Your task to perform on an android device: toggle improve location accuracy Image 0: 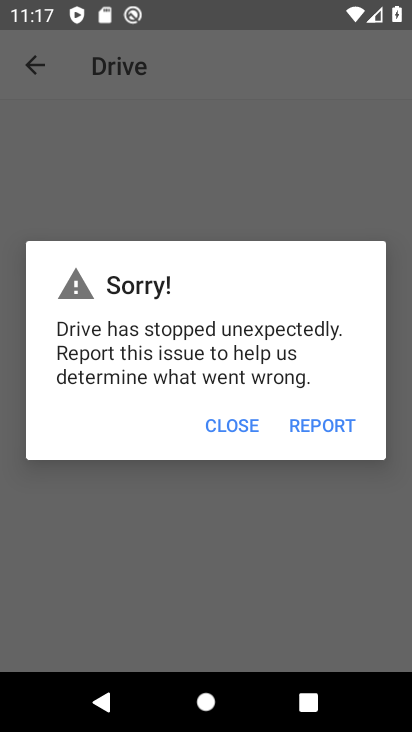
Step 0: press home button
Your task to perform on an android device: toggle improve location accuracy Image 1: 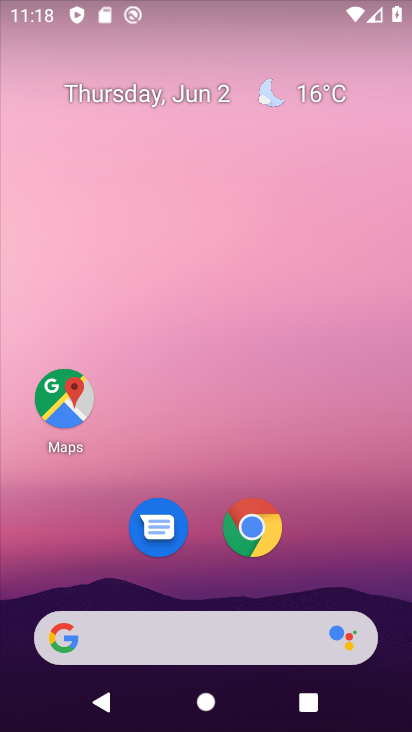
Step 1: drag from (128, 626) to (39, 30)
Your task to perform on an android device: toggle improve location accuracy Image 2: 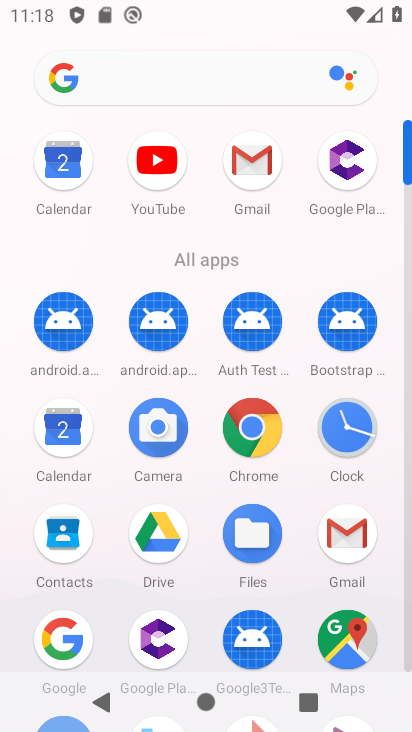
Step 2: drag from (205, 586) to (143, 98)
Your task to perform on an android device: toggle improve location accuracy Image 3: 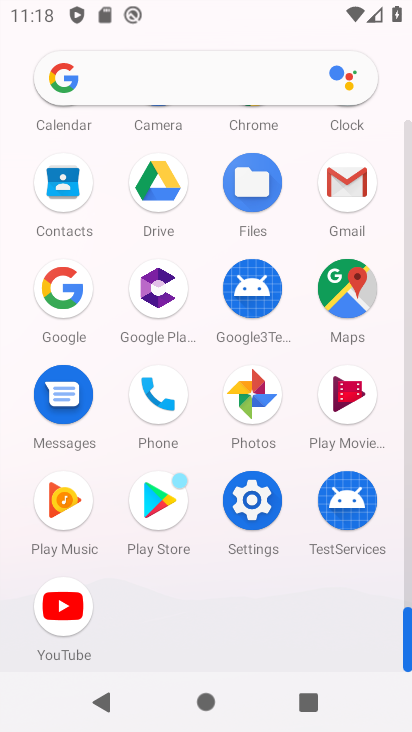
Step 3: click (244, 491)
Your task to perform on an android device: toggle improve location accuracy Image 4: 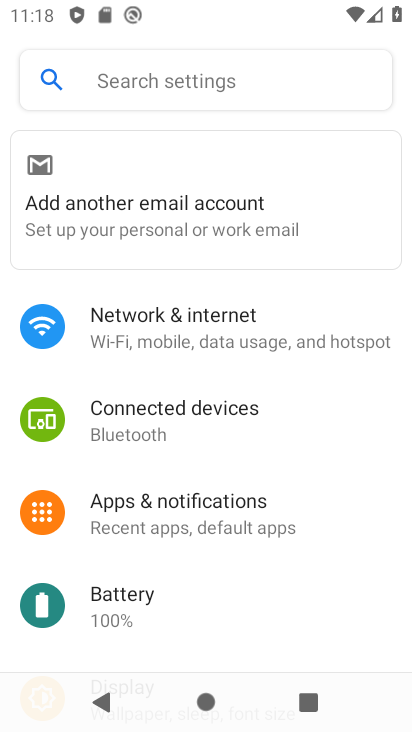
Step 4: drag from (214, 536) to (32, 3)
Your task to perform on an android device: toggle improve location accuracy Image 5: 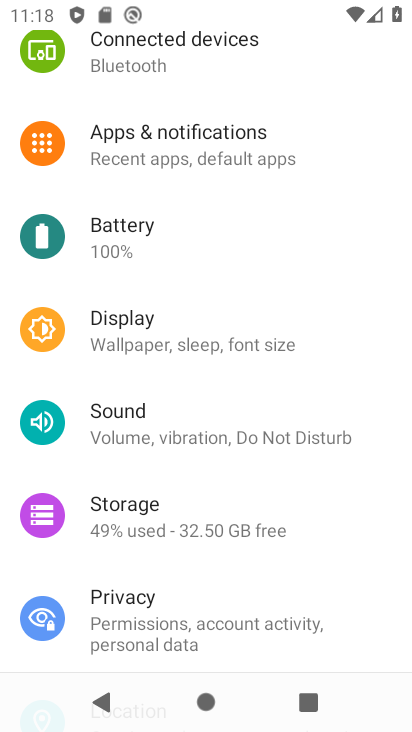
Step 5: drag from (142, 536) to (58, 11)
Your task to perform on an android device: toggle improve location accuracy Image 6: 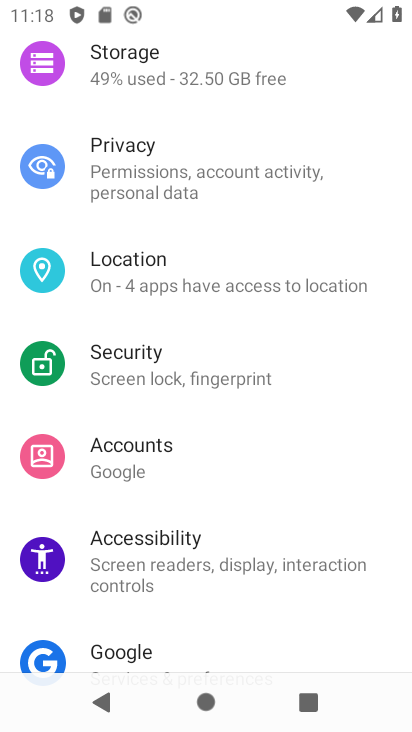
Step 6: click (106, 279)
Your task to perform on an android device: toggle improve location accuracy Image 7: 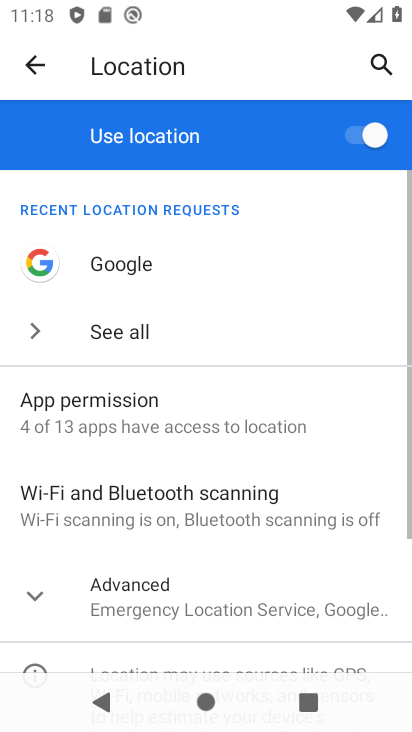
Step 7: drag from (174, 540) to (163, 71)
Your task to perform on an android device: toggle improve location accuracy Image 8: 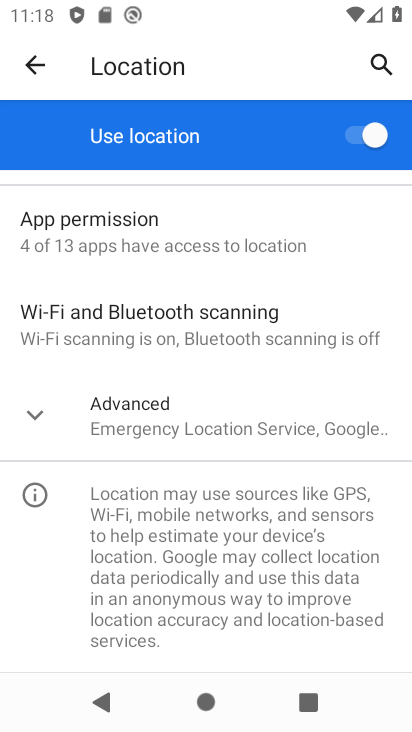
Step 8: click (103, 429)
Your task to perform on an android device: toggle improve location accuracy Image 9: 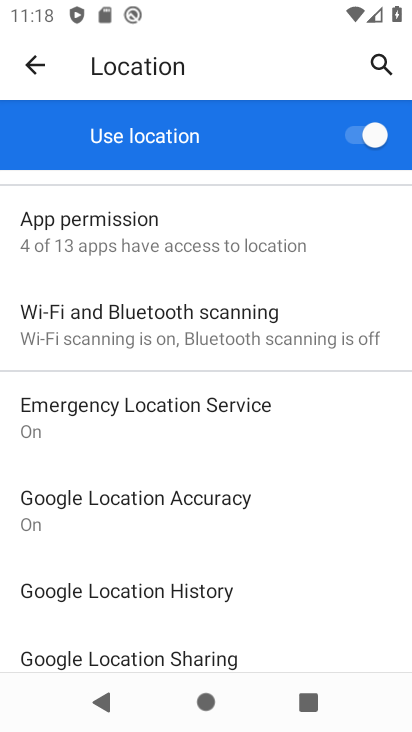
Step 9: click (144, 509)
Your task to perform on an android device: toggle improve location accuracy Image 10: 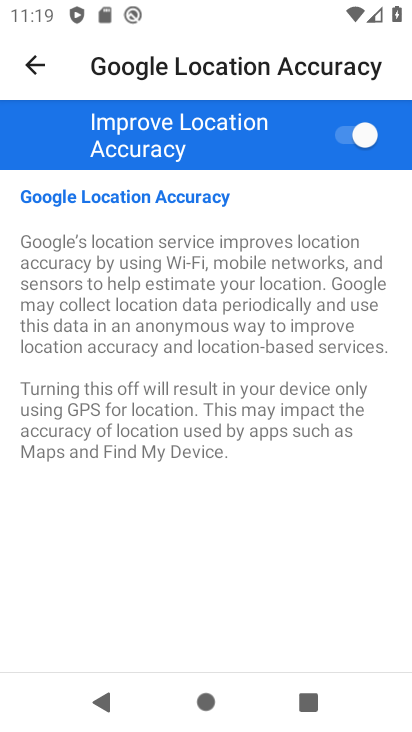
Step 10: click (362, 146)
Your task to perform on an android device: toggle improve location accuracy Image 11: 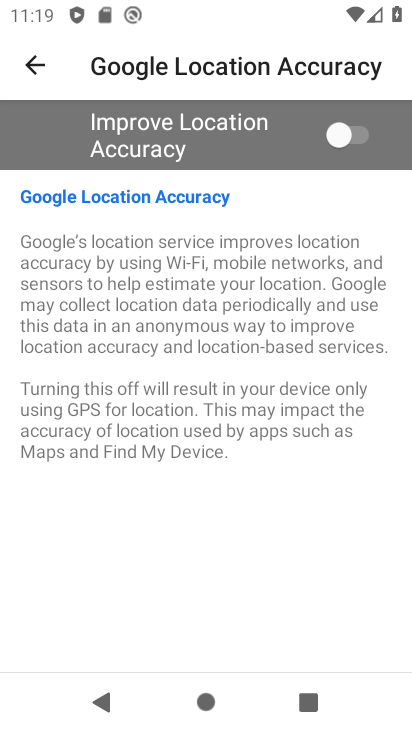
Step 11: task complete